Your task to perform on an android device: stop showing notifications on the lock screen Image 0: 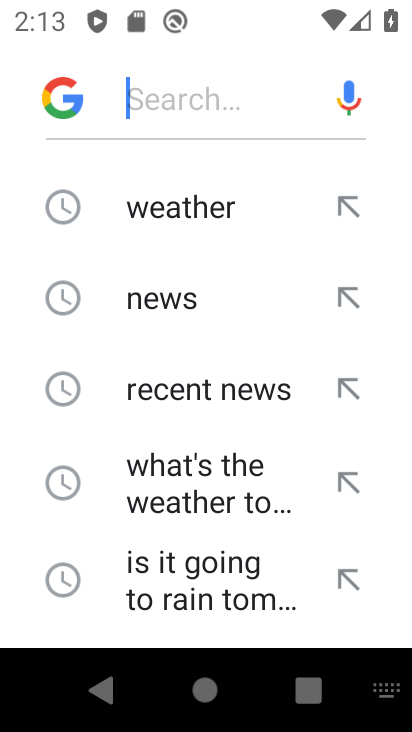
Step 0: press back button
Your task to perform on an android device: stop showing notifications on the lock screen Image 1: 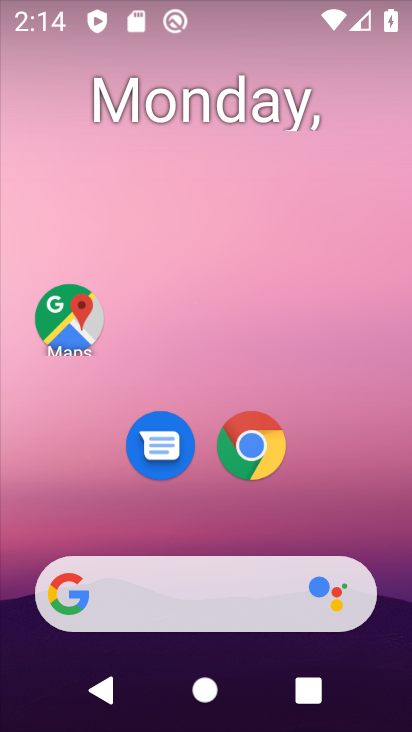
Step 1: drag from (330, 549) to (291, 11)
Your task to perform on an android device: stop showing notifications on the lock screen Image 2: 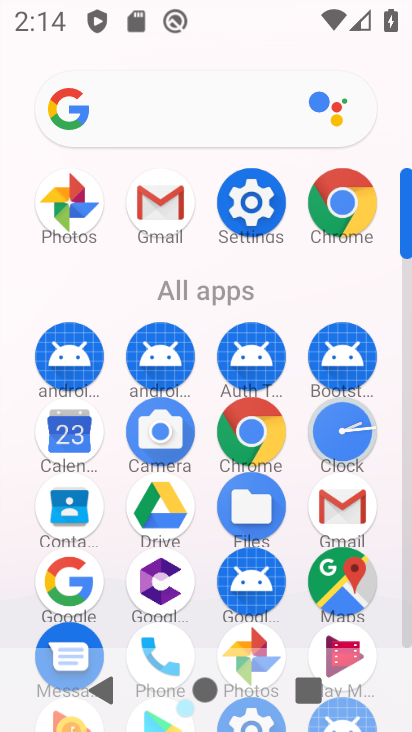
Step 2: drag from (10, 649) to (15, 275)
Your task to perform on an android device: stop showing notifications on the lock screen Image 3: 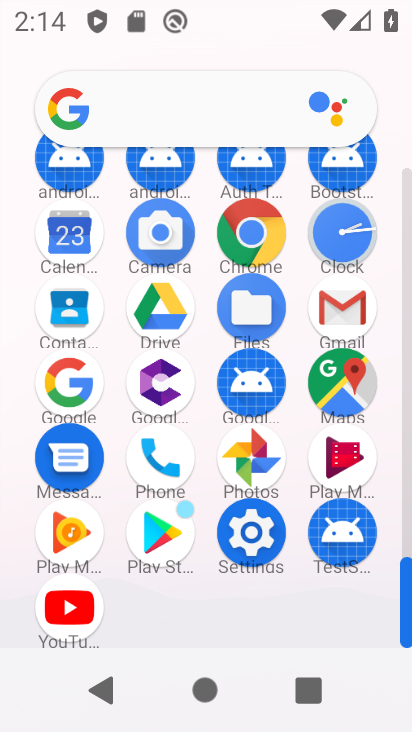
Step 3: click (245, 529)
Your task to perform on an android device: stop showing notifications on the lock screen Image 4: 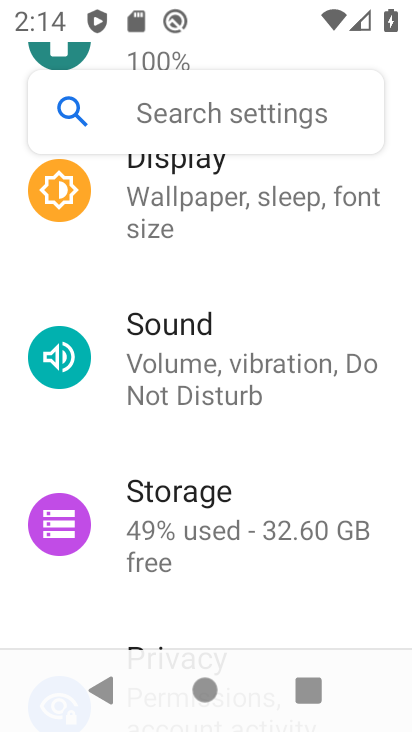
Step 4: drag from (289, 220) to (285, 610)
Your task to perform on an android device: stop showing notifications on the lock screen Image 5: 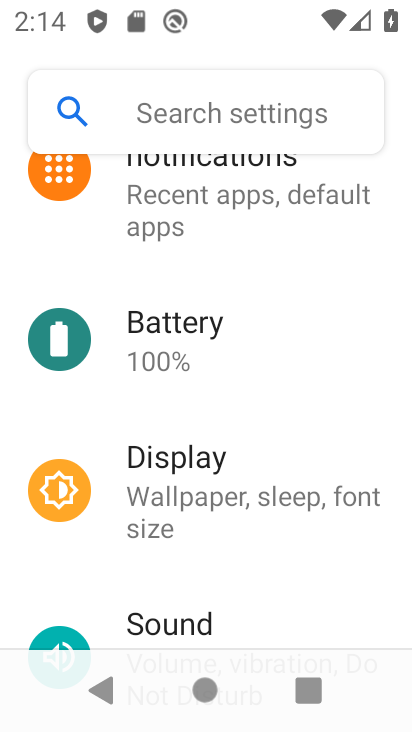
Step 5: drag from (290, 330) to (289, 584)
Your task to perform on an android device: stop showing notifications on the lock screen Image 6: 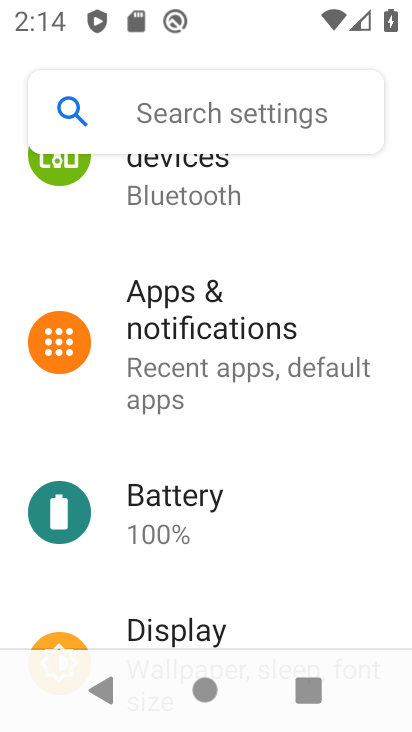
Step 6: click (245, 359)
Your task to perform on an android device: stop showing notifications on the lock screen Image 7: 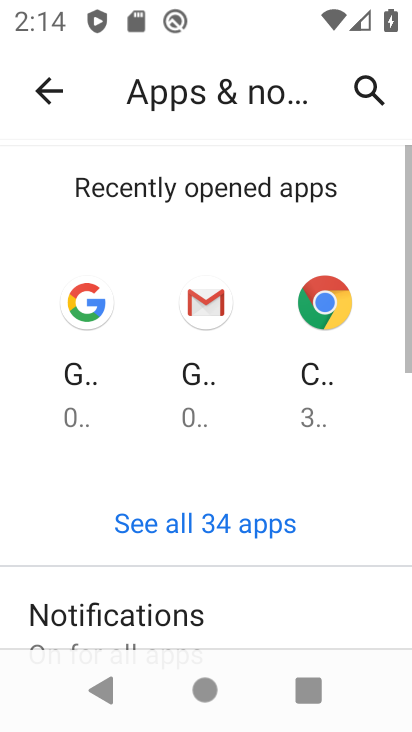
Step 7: drag from (253, 587) to (256, 154)
Your task to perform on an android device: stop showing notifications on the lock screen Image 8: 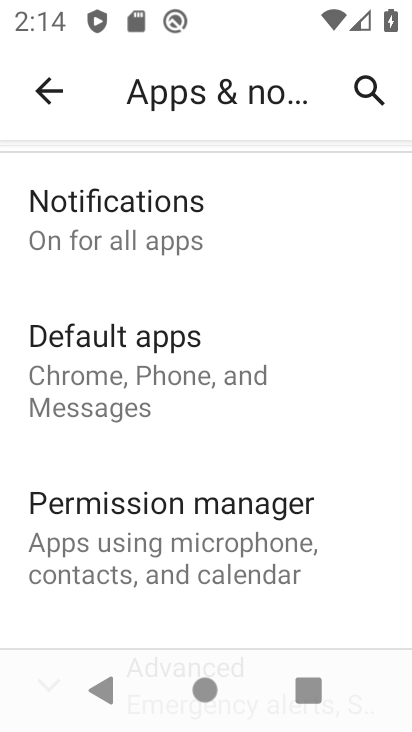
Step 8: click (189, 206)
Your task to perform on an android device: stop showing notifications on the lock screen Image 9: 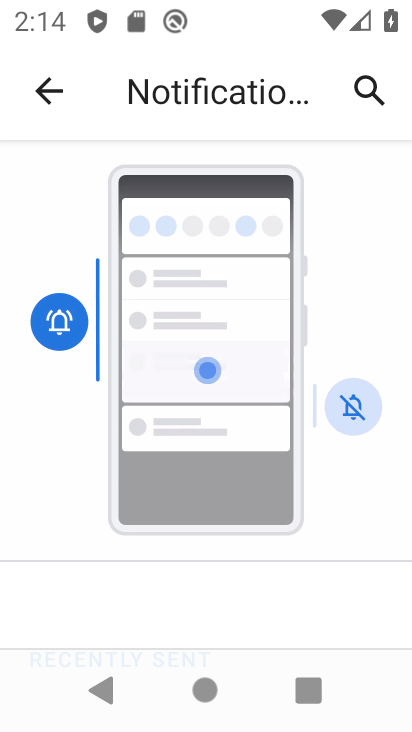
Step 9: drag from (196, 495) to (239, 138)
Your task to perform on an android device: stop showing notifications on the lock screen Image 10: 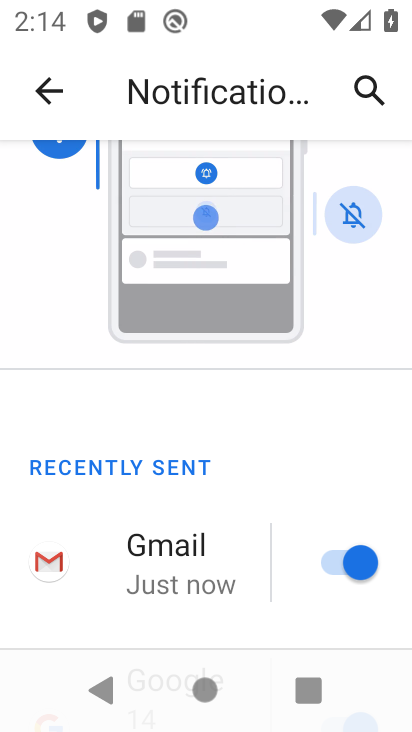
Step 10: drag from (175, 579) to (210, 82)
Your task to perform on an android device: stop showing notifications on the lock screen Image 11: 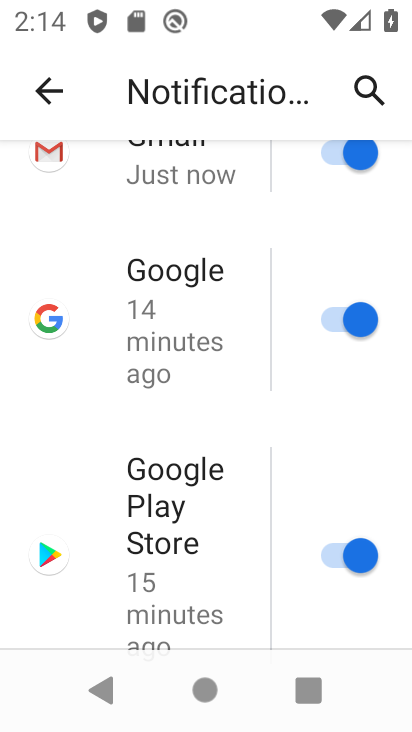
Step 11: drag from (161, 516) to (181, 134)
Your task to perform on an android device: stop showing notifications on the lock screen Image 12: 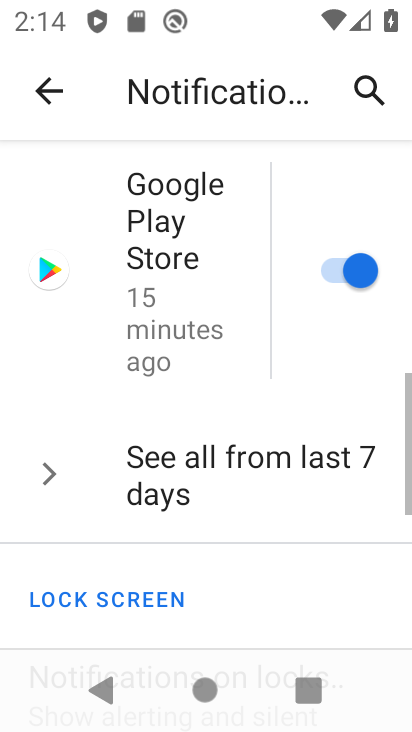
Step 12: drag from (182, 547) to (199, 96)
Your task to perform on an android device: stop showing notifications on the lock screen Image 13: 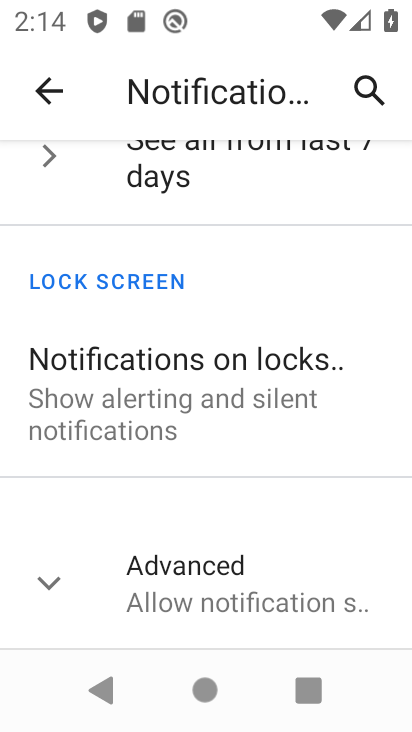
Step 13: drag from (196, 555) to (205, 346)
Your task to perform on an android device: stop showing notifications on the lock screen Image 14: 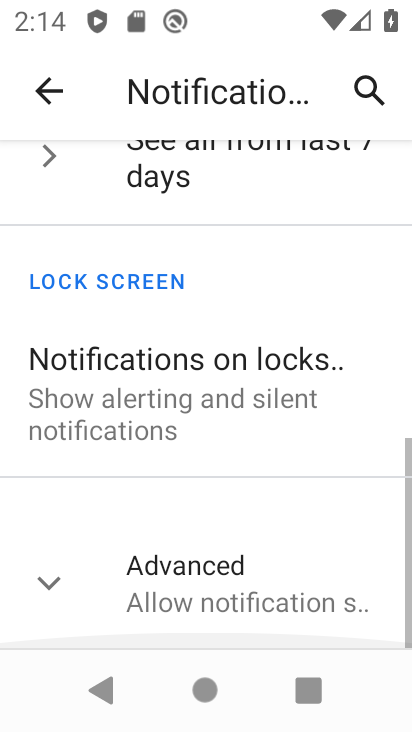
Step 14: click (49, 576)
Your task to perform on an android device: stop showing notifications on the lock screen Image 15: 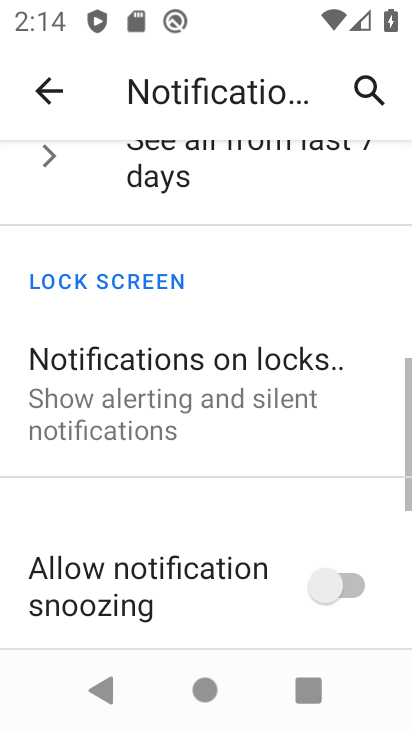
Step 15: drag from (214, 582) to (255, 154)
Your task to perform on an android device: stop showing notifications on the lock screen Image 16: 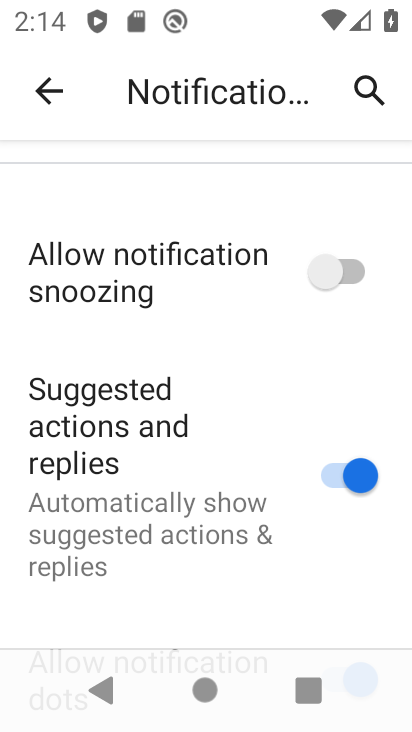
Step 16: drag from (195, 524) to (209, 142)
Your task to perform on an android device: stop showing notifications on the lock screen Image 17: 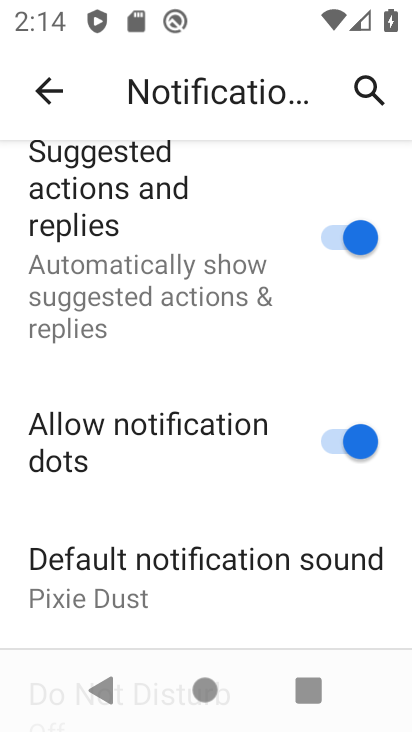
Step 17: drag from (168, 504) to (196, 145)
Your task to perform on an android device: stop showing notifications on the lock screen Image 18: 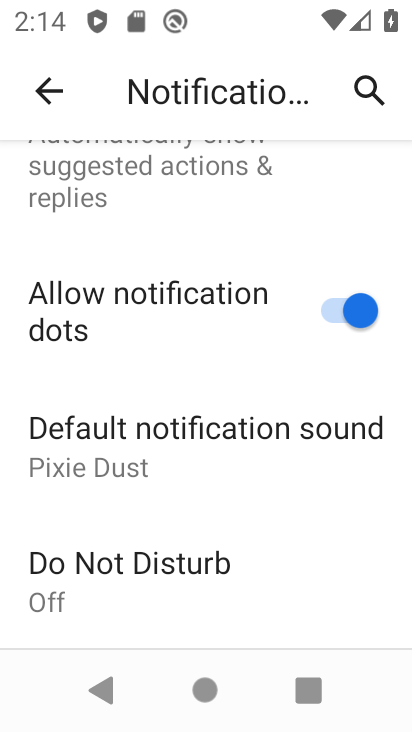
Step 18: drag from (232, 187) to (216, 478)
Your task to perform on an android device: stop showing notifications on the lock screen Image 19: 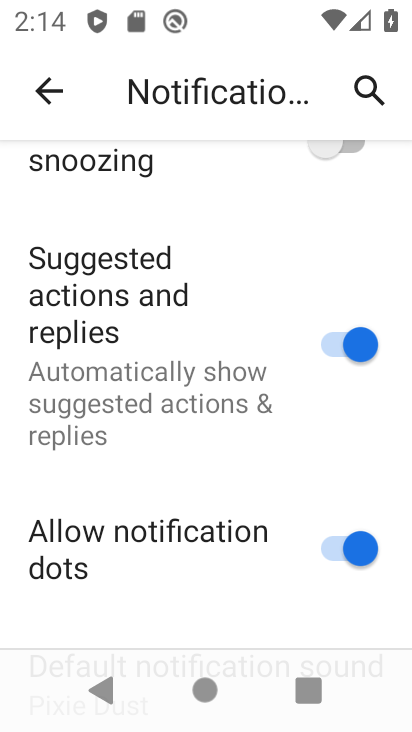
Step 19: drag from (216, 179) to (216, 565)
Your task to perform on an android device: stop showing notifications on the lock screen Image 20: 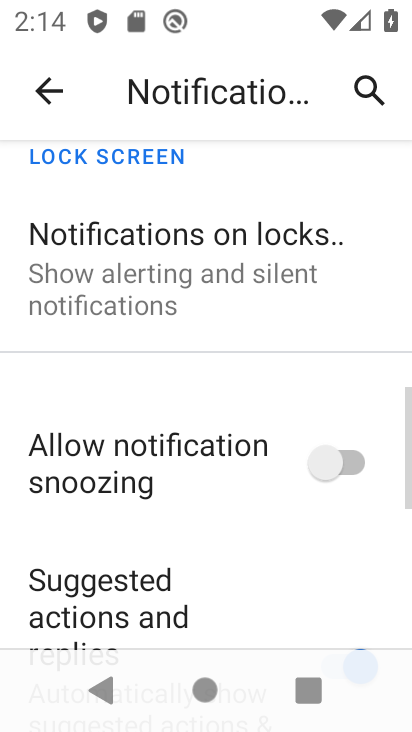
Step 20: drag from (209, 562) to (239, 106)
Your task to perform on an android device: stop showing notifications on the lock screen Image 21: 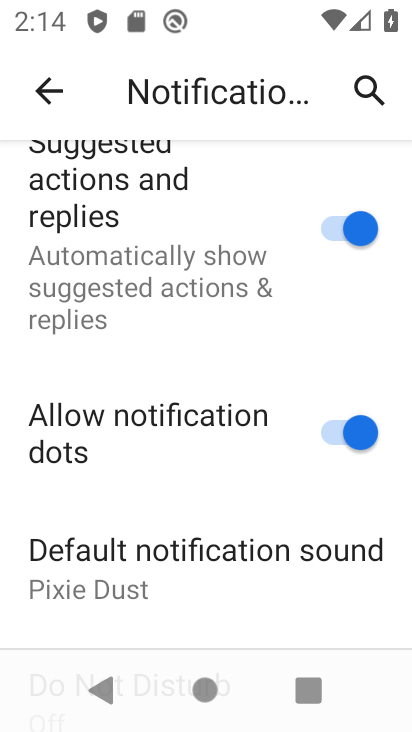
Step 21: drag from (200, 265) to (201, 559)
Your task to perform on an android device: stop showing notifications on the lock screen Image 22: 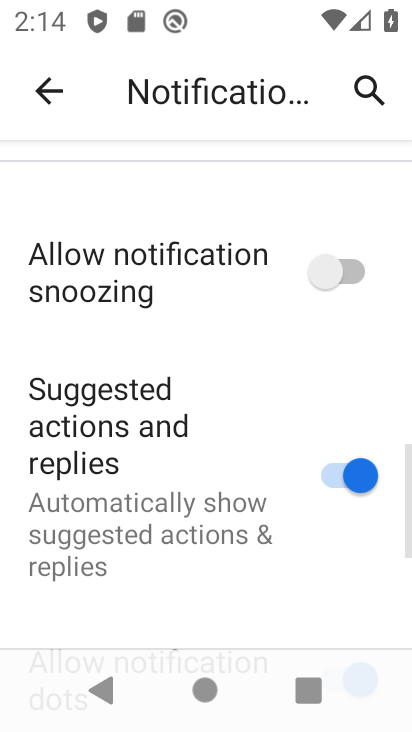
Step 22: drag from (195, 481) to (207, 577)
Your task to perform on an android device: stop showing notifications on the lock screen Image 23: 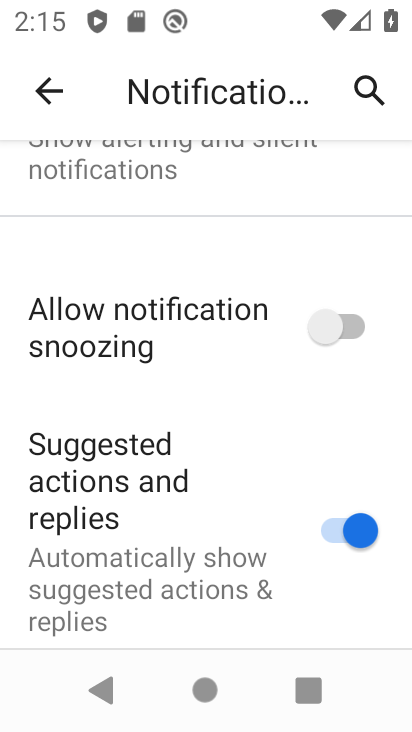
Step 23: drag from (211, 201) to (206, 563)
Your task to perform on an android device: stop showing notifications on the lock screen Image 24: 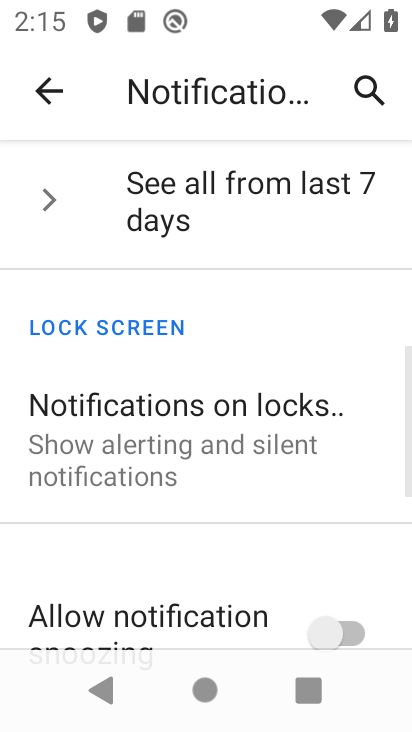
Step 24: click (189, 389)
Your task to perform on an android device: stop showing notifications on the lock screen Image 25: 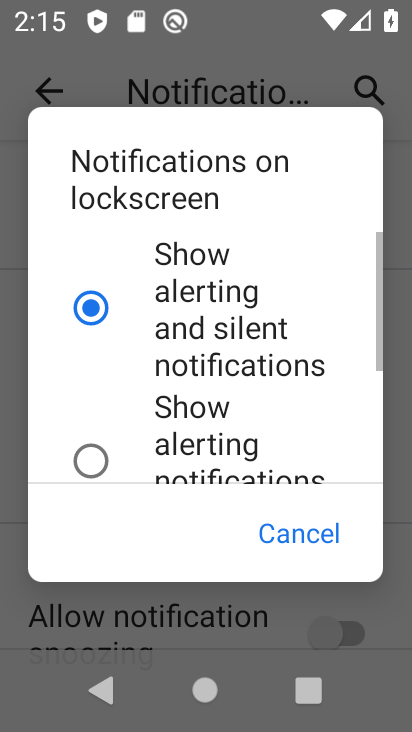
Step 25: drag from (202, 376) to (232, 138)
Your task to perform on an android device: stop showing notifications on the lock screen Image 26: 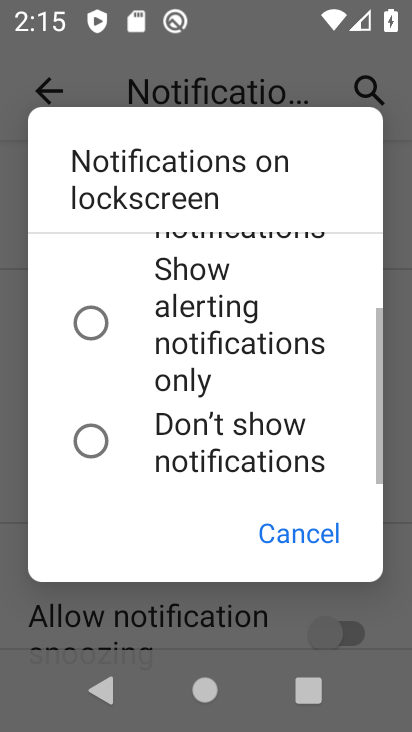
Step 26: click (145, 421)
Your task to perform on an android device: stop showing notifications on the lock screen Image 27: 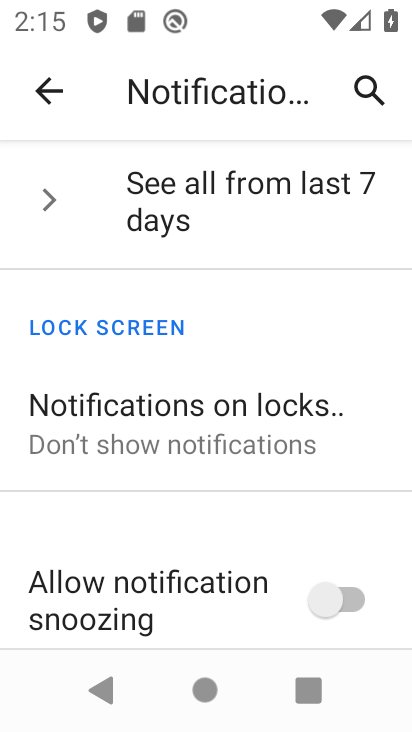
Step 27: task complete